Your task to perform on an android device: Clear all items from cart on ebay. Search for amazon basics triple a on ebay, select the first entry, and add it to the cart. Image 0: 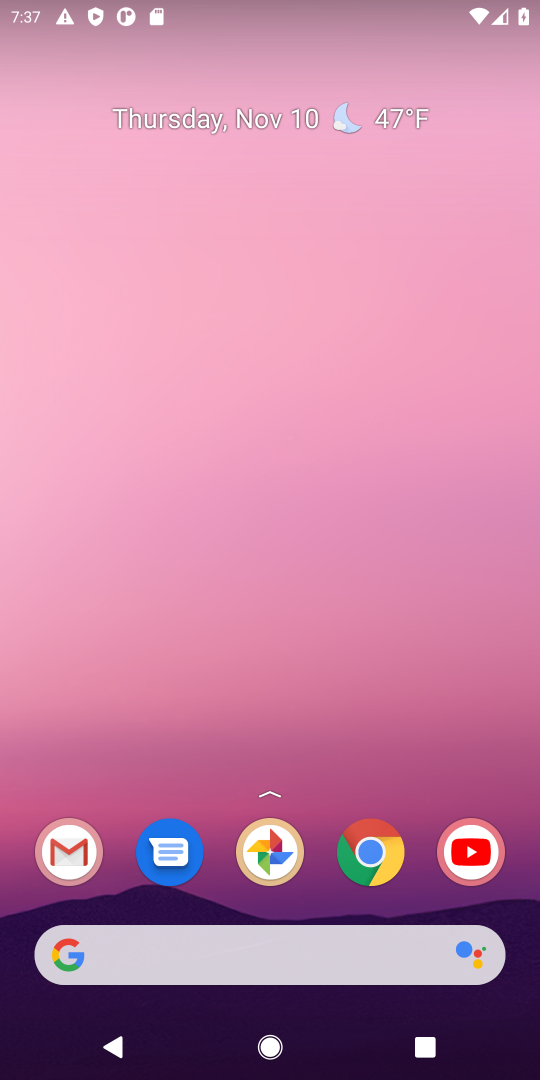
Step 0: click (376, 865)
Your task to perform on an android device: Clear all items from cart on ebay. Search for amazon basics triple a on ebay, select the first entry, and add it to the cart. Image 1: 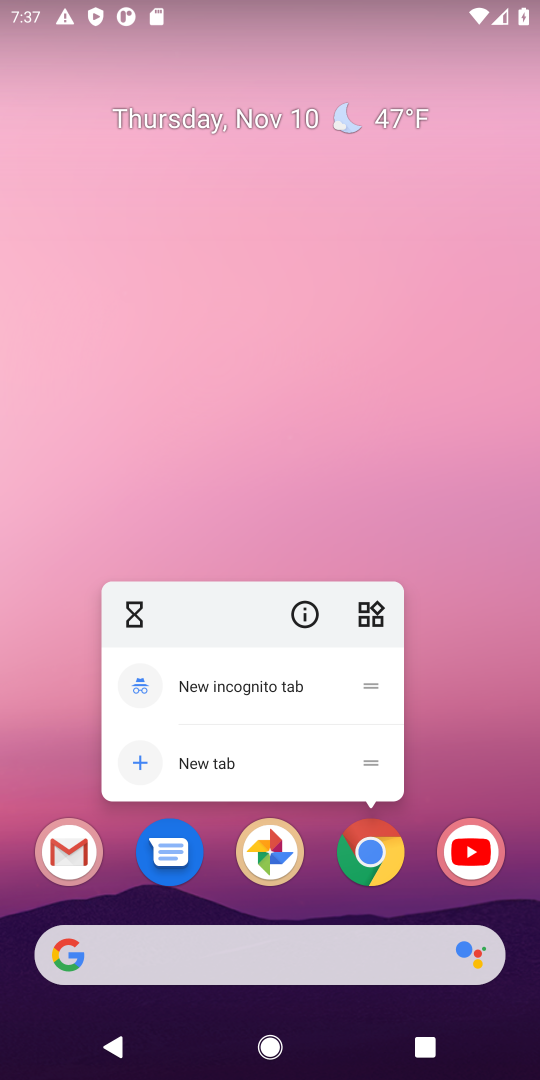
Step 1: click (372, 855)
Your task to perform on an android device: Clear all items from cart on ebay. Search for amazon basics triple a on ebay, select the first entry, and add it to the cart. Image 2: 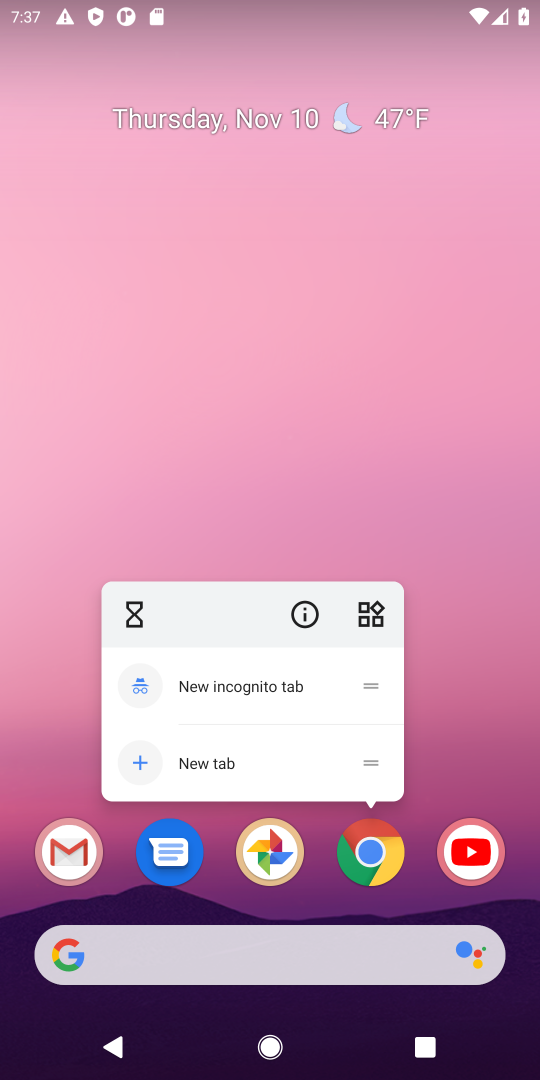
Step 2: click (368, 853)
Your task to perform on an android device: Clear all items from cart on ebay. Search for amazon basics triple a on ebay, select the first entry, and add it to the cart. Image 3: 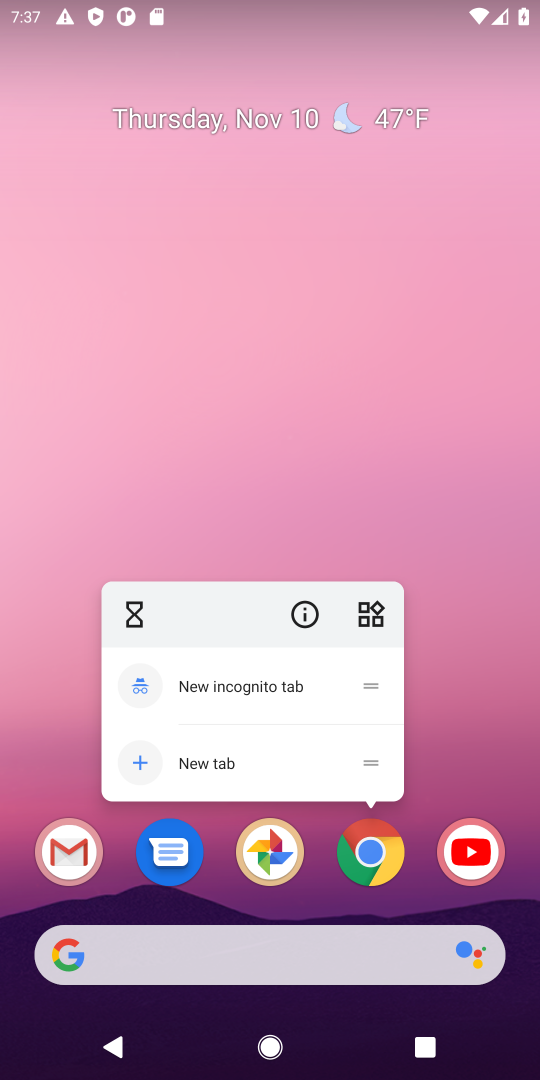
Step 3: click (376, 848)
Your task to perform on an android device: Clear all items from cart on ebay. Search for amazon basics triple a on ebay, select the first entry, and add it to the cart. Image 4: 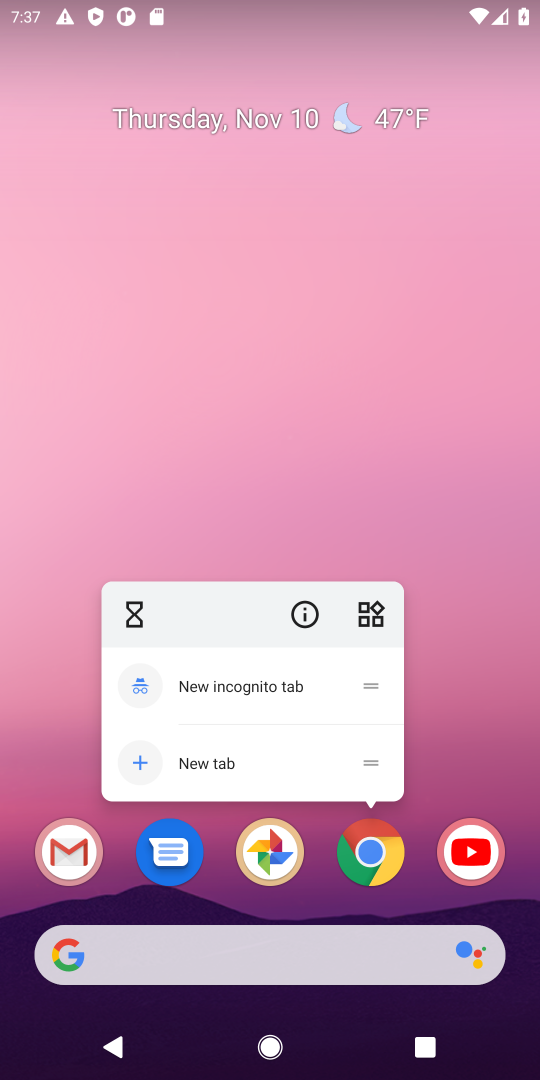
Step 4: click (376, 852)
Your task to perform on an android device: Clear all items from cart on ebay. Search for amazon basics triple a on ebay, select the first entry, and add it to the cart. Image 5: 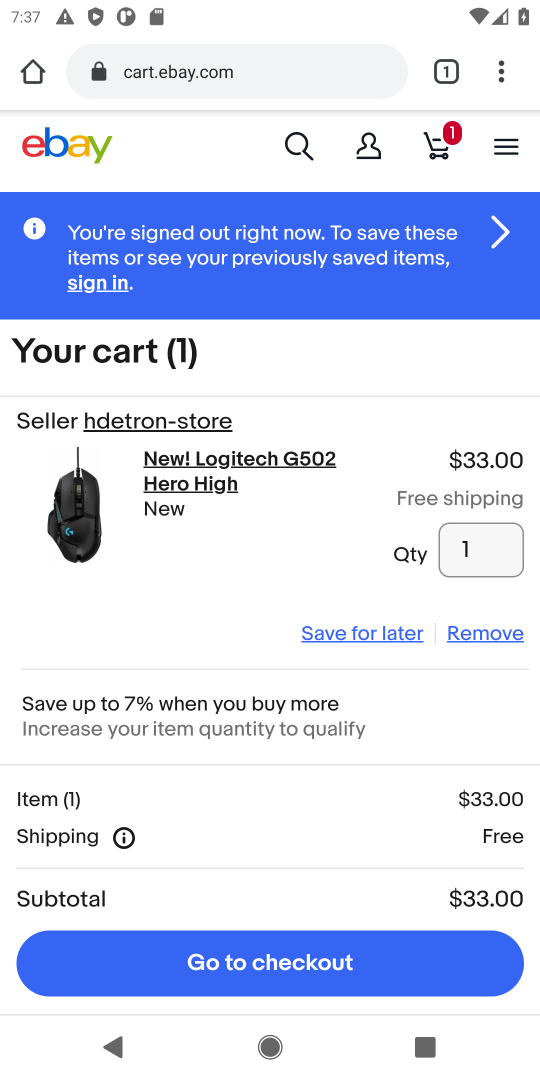
Step 5: click (292, 132)
Your task to perform on an android device: Clear all items from cart on ebay. Search for amazon basics triple a on ebay, select the first entry, and add it to the cart. Image 6: 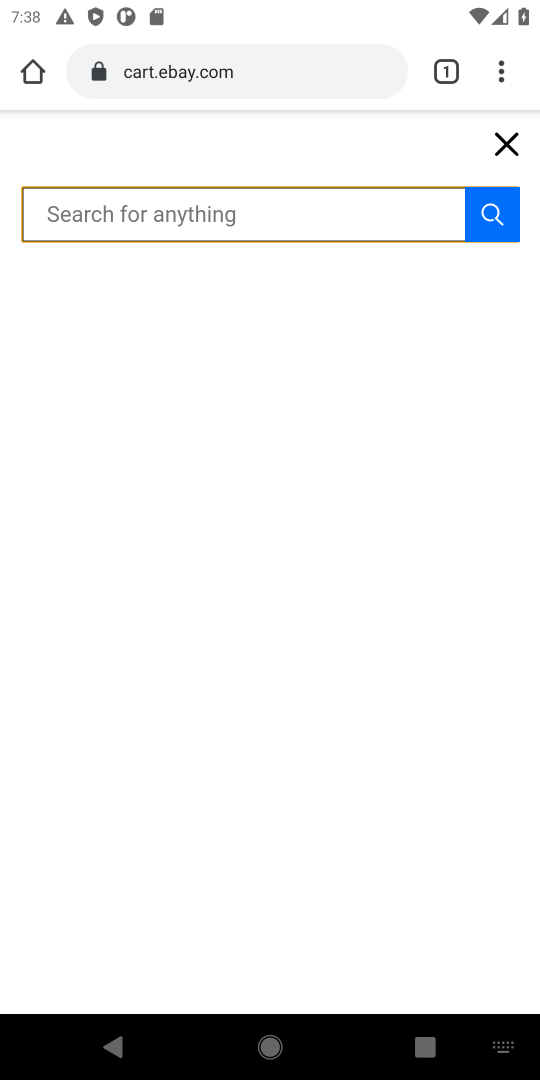
Step 6: type "amazon basics triple a"
Your task to perform on an android device: Clear all items from cart on ebay. Search for amazon basics triple a on ebay, select the first entry, and add it to the cart. Image 7: 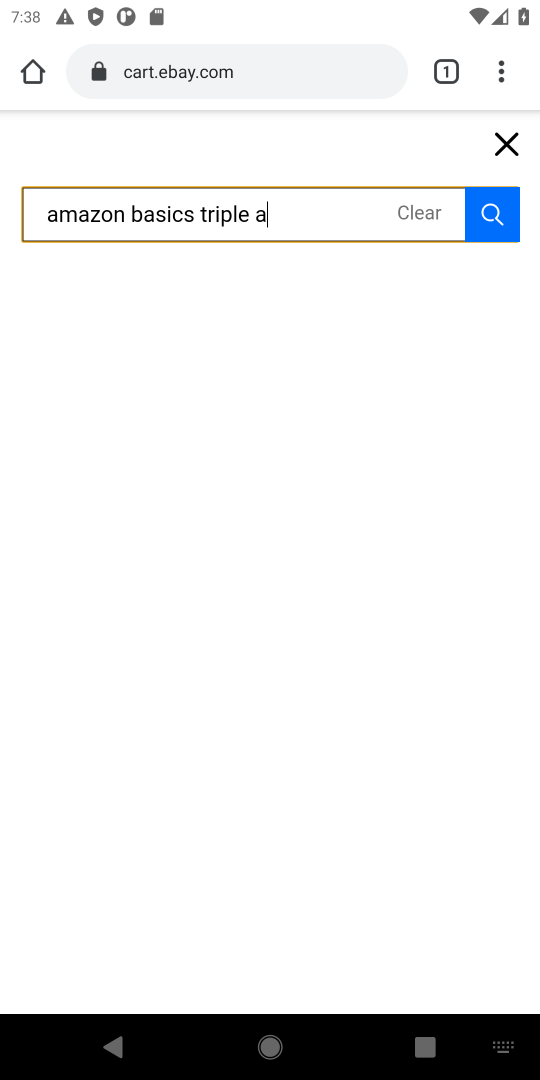
Step 7: press enter
Your task to perform on an android device: Clear all items from cart on ebay. Search for amazon basics triple a on ebay, select the first entry, and add it to the cart. Image 8: 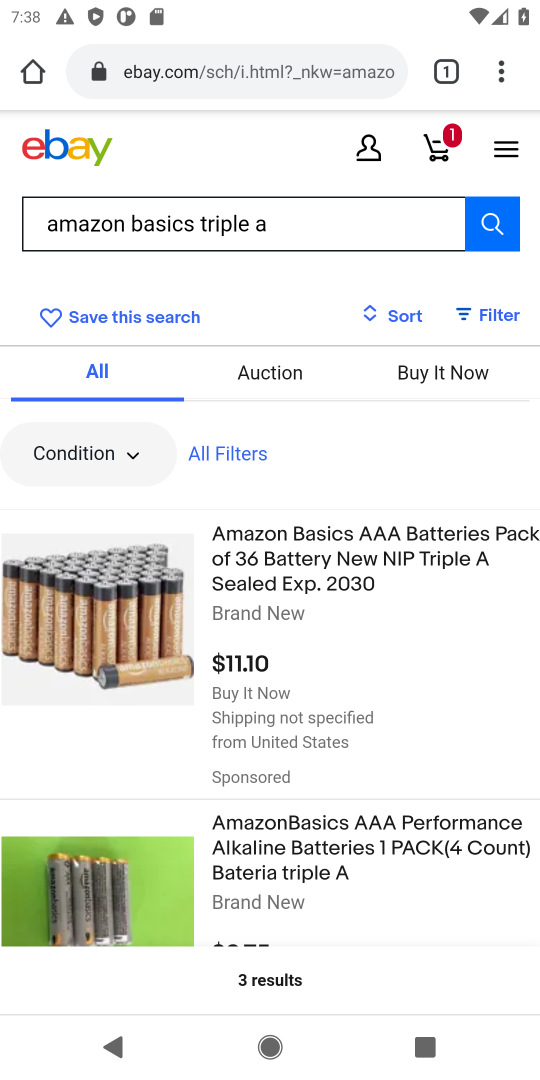
Step 8: click (349, 556)
Your task to perform on an android device: Clear all items from cart on ebay. Search for amazon basics triple a on ebay, select the first entry, and add it to the cart. Image 9: 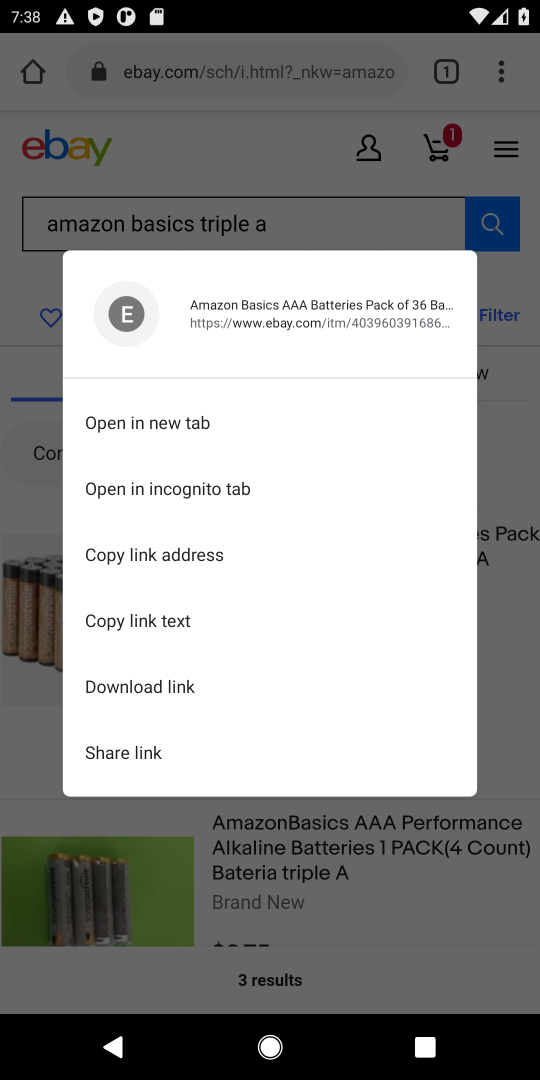
Step 9: click (517, 577)
Your task to perform on an android device: Clear all items from cart on ebay. Search for amazon basics triple a on ebay, select the first entry, and add it to the cart. Image 10: 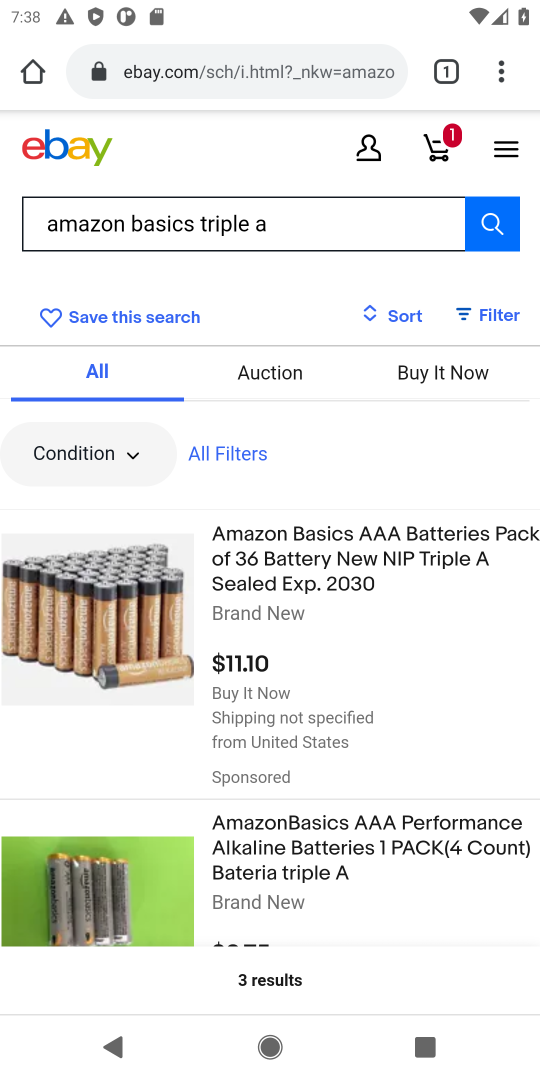
Step 10: click (450, 552)
Your task to perform on an android device: Clear all items from cart on ebay. Search for amazon basics triple a on ebay, select the first entry, and add it to the cart. Image 11: 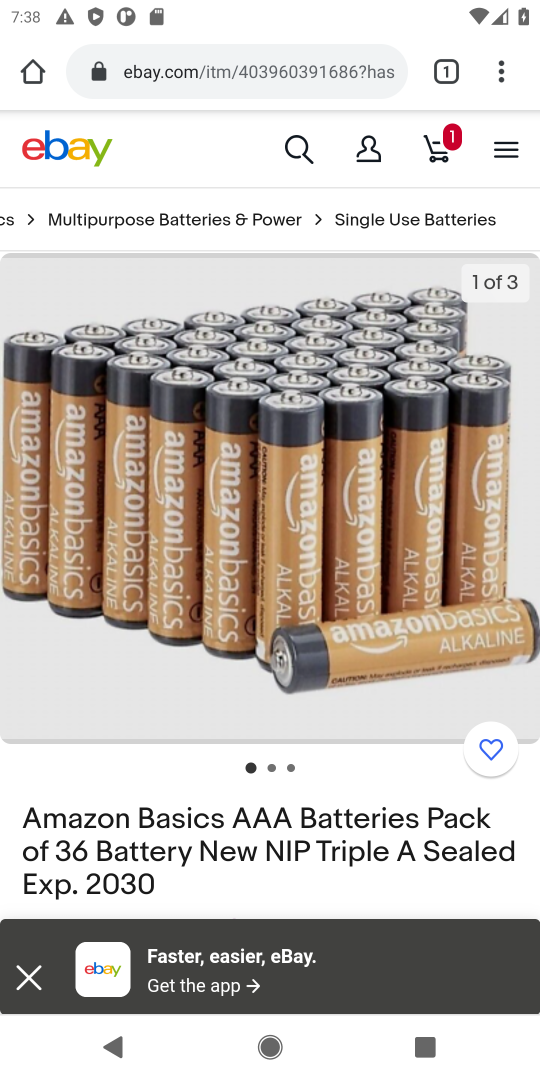
Step 11: drag from (281, 885) to (273, 286)
Your task to perform on an android device: Clear all items from cart on ebay. Search for amazon basics triple a on ebay, select the first entry, and add it to the cart. Image 12: 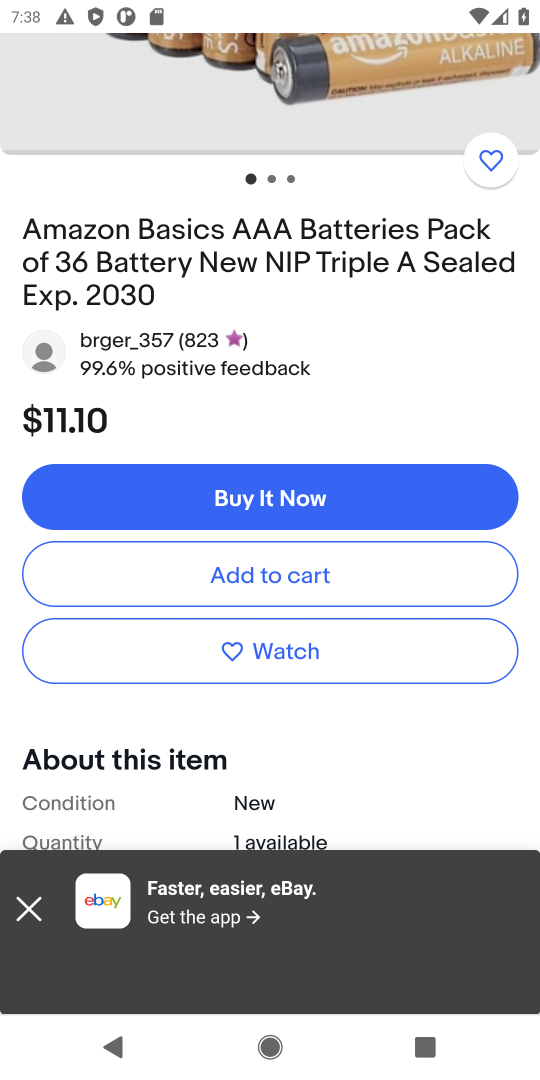
Step 12: click (310, 573)
Your task to perform on an android device: Clear all items from cart on ebay. Search for amazon basics triple a on ebay, select the first entry, and add it to the cart. Image 13: 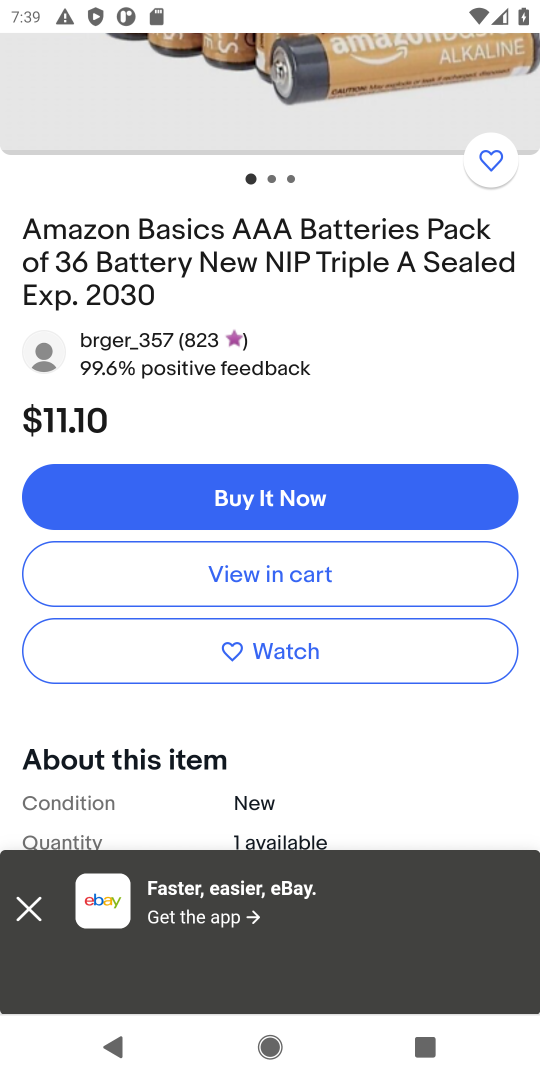
Step 13: click (310, 574)
Your task to perform on an android device: Clear all items from cart on ebay. Search for amazon basics triple a on ebay, select the first entry, and add it to the cart. Image 14: 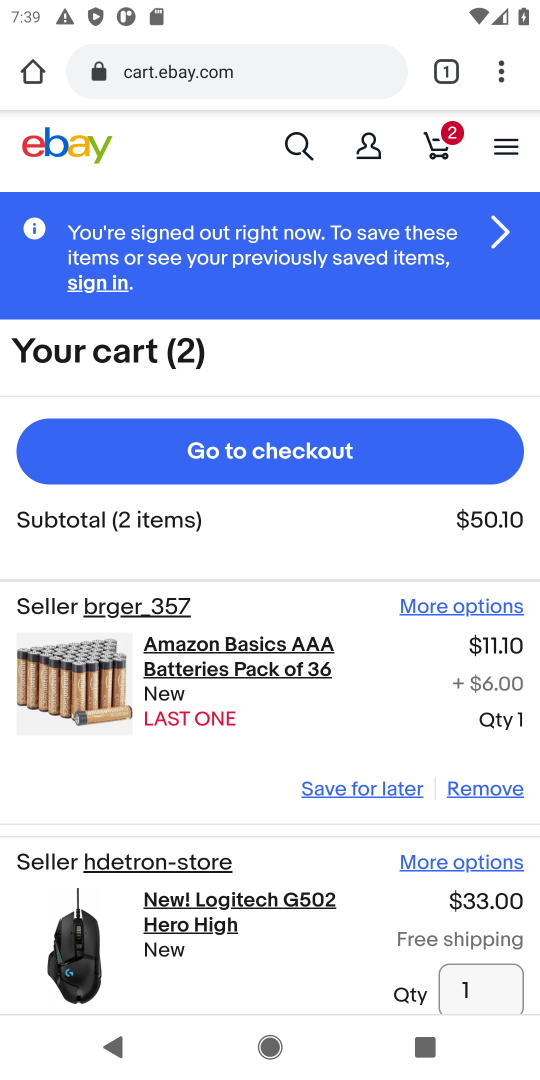
Step 14: drag from (346, 933) to (387, 445)
Your task to perform on an android device: Clear all items from cart on ebay. Search for amazon basics triple a on ebay, select the first entry, and add it to the cart. Image 15: 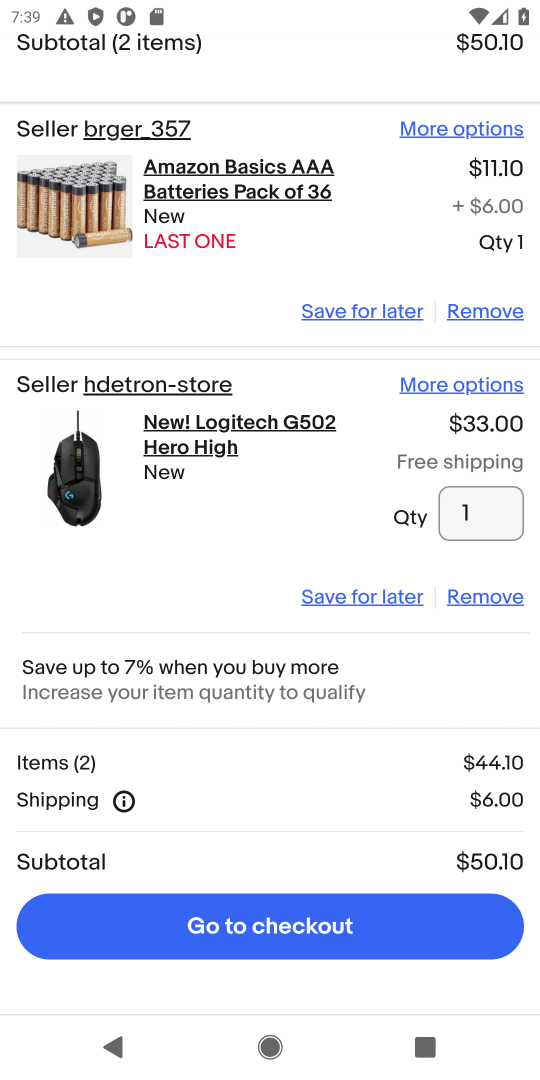
Step 15: click (480, 597)
Your task to perform on an android device: Clear all items from cart on ebay. Search for amazon basics triple a on ebay, select the first entry, and add it to the cart. Image 16: 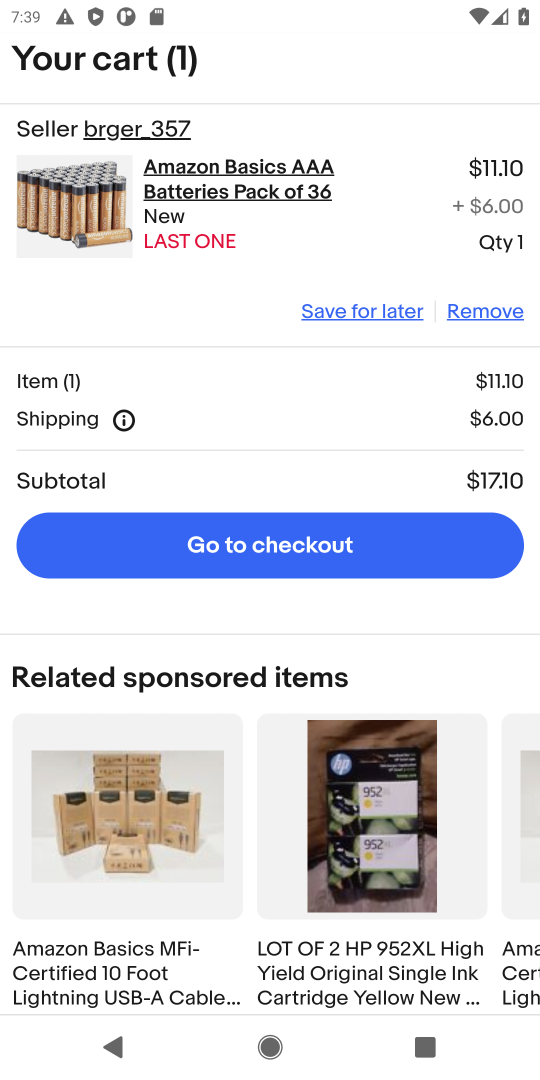
Step 16: task complete